Your task to perform on an android device: make emails show in primary in the gmail app Image 0: 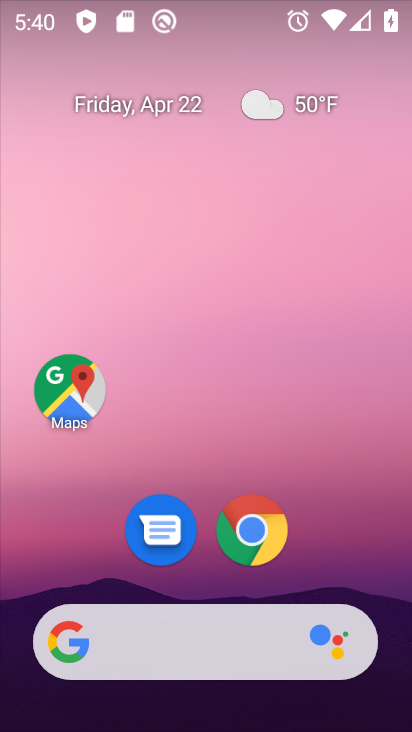
Step 0: drag from (346, 555) to (335, 142)
Your task to perform on an android device: make emails show in primary in the gmail app Image 1: 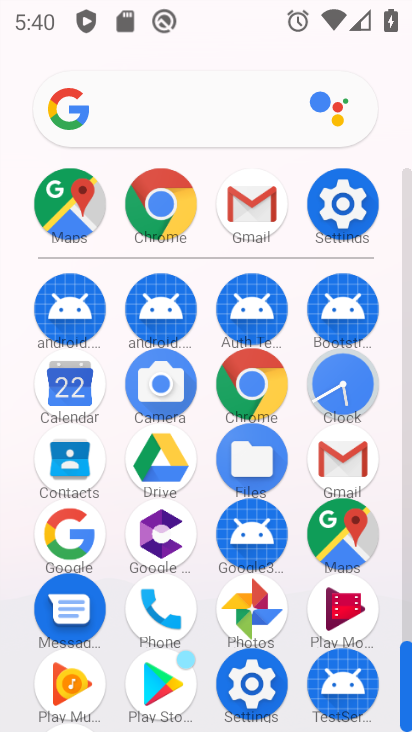
Step 1: click (323, 448)
Your task to perform on an android device: make emails show in primary in the gmail app Image 2: 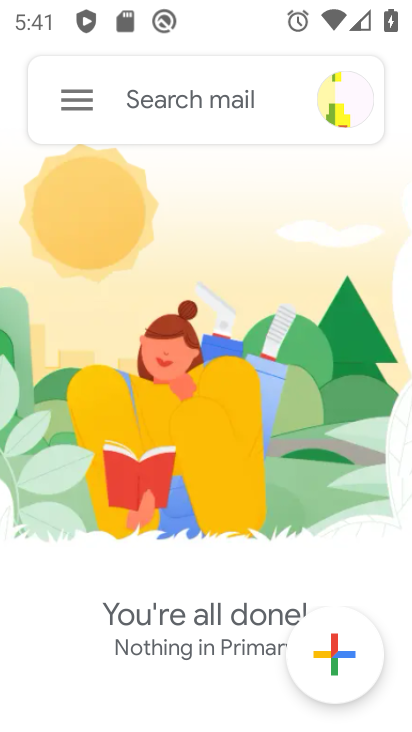
Step 2: task complete